Your task to perform on an android device: toggle airplane mode Image 0: 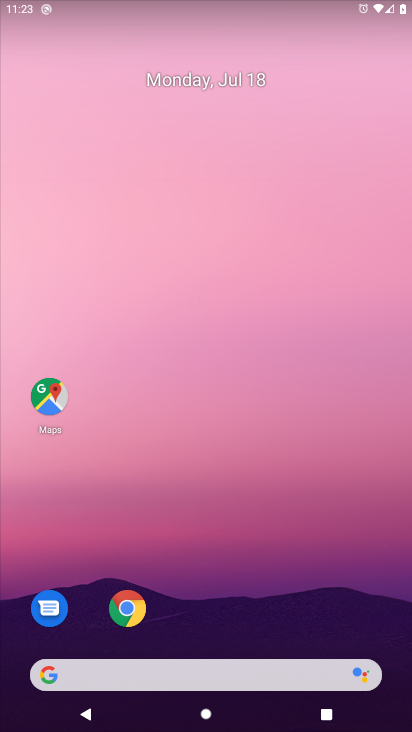
Step 0: drag from (38, 683) to (268, 286)
Your task to perform on an android device: toggle airplane mode Image 1: 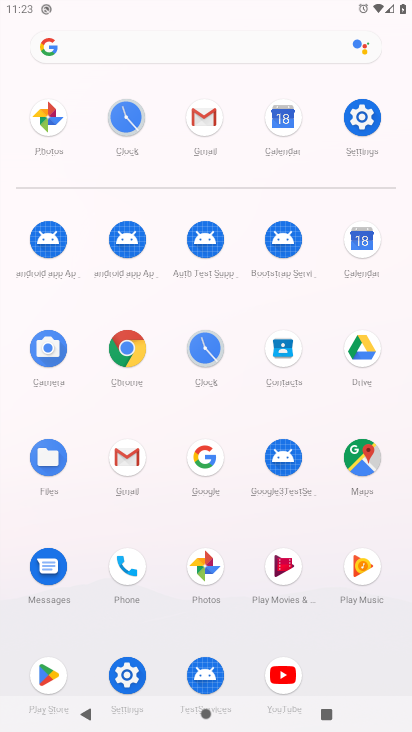
Step 1: click (117, 653)
Your task to perform on an android device: toggle airplane mode Image 2: 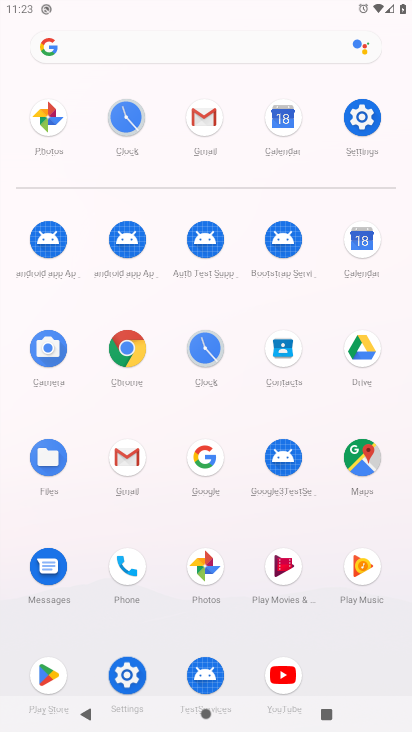
Step 2: click (117, 662)
Your task to perform on an android device: toggle airplane mode Image 3: 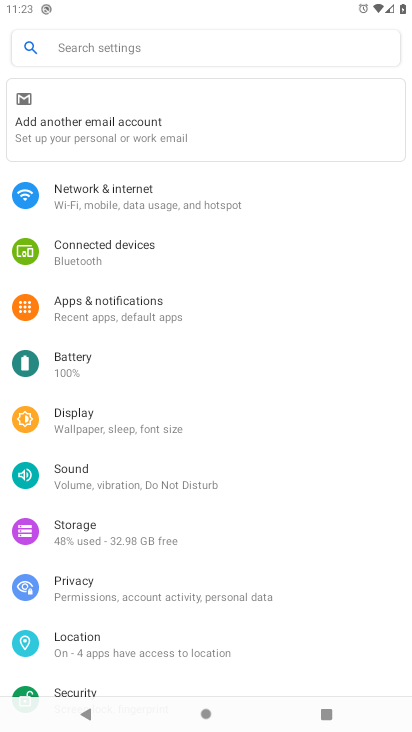
Step 3: click (162, 204)
Your task to perform on an android device: toggle airplane mode Image 4: 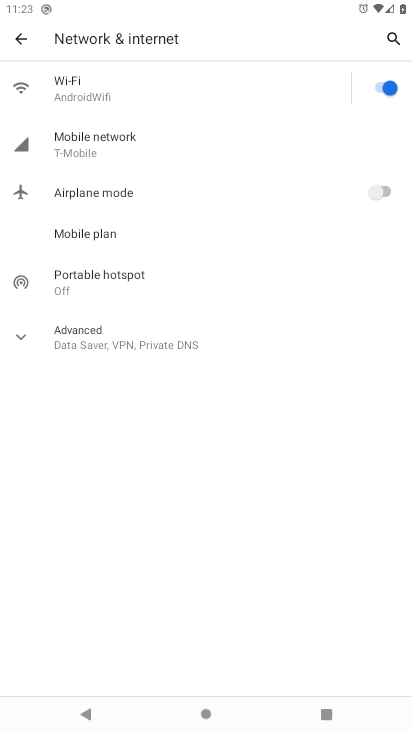
Step 4: click (380, 192)
Your task to perform on an android device: toggle airplane mode Image 5: 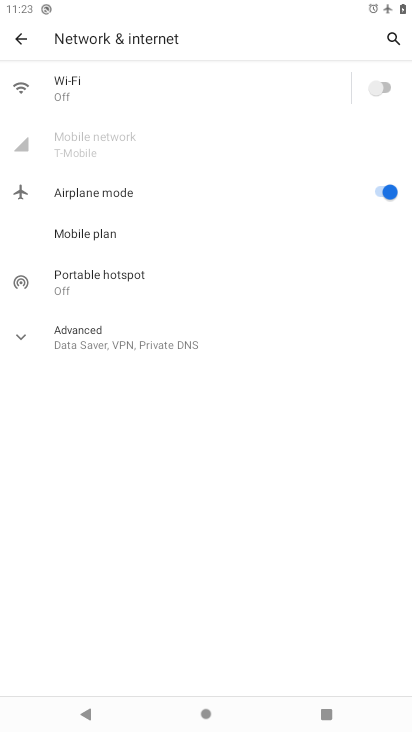
Step 5: task complete